Your task to perform on an android device: Toggle the flashlight Image 0: 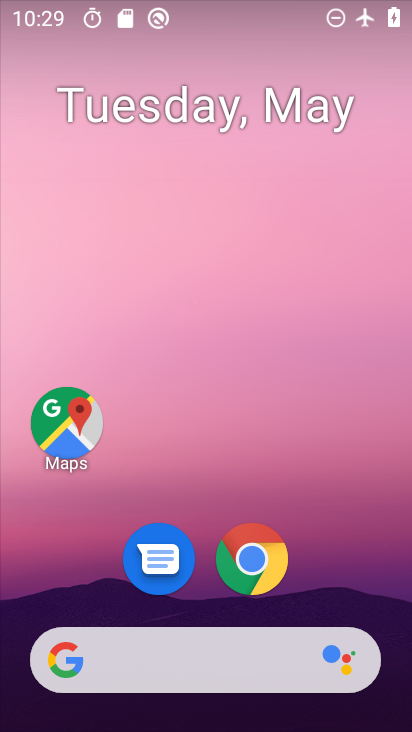
Step 0: drag from (395, 641) to (227, 2)
Your task to perform on an android device: Toggle the flashlight Image 1: 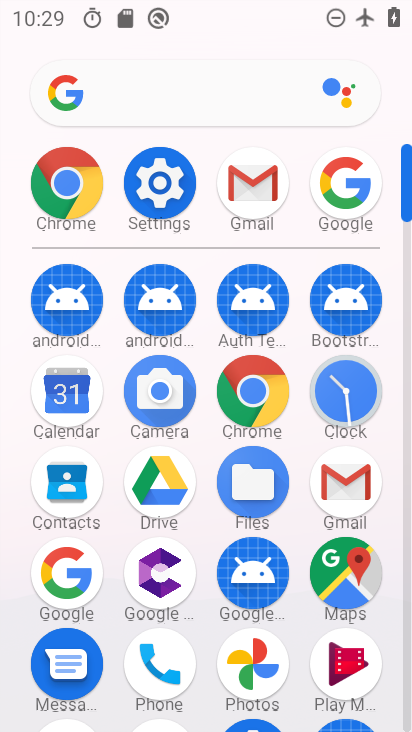
Step 1: click (172, 191)
Your task to perform on an android device: Toggle the flashlight Image 2: 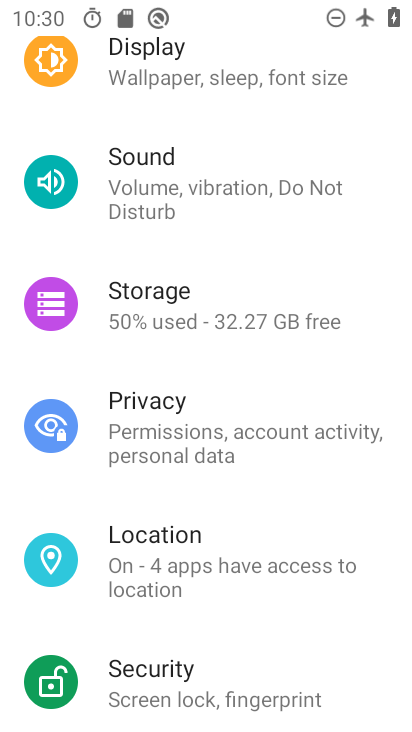
Step 2: task complete